Your task to perform on an android device: turn off priority inbox in the gmail app Image 0: 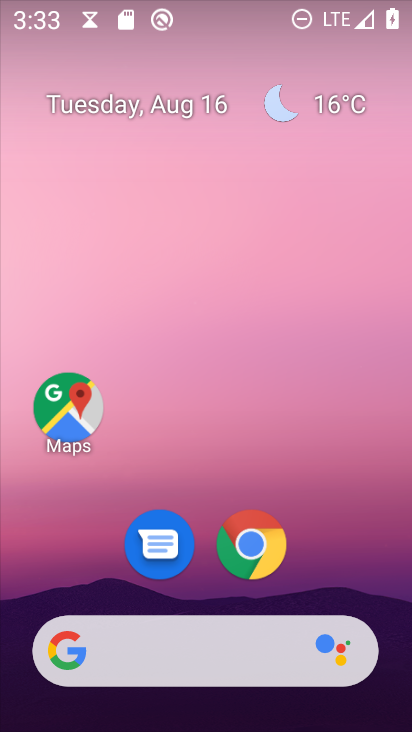
Step 0: drag from (183, 665) to (265, 61)
Your task to perform on an android device: turn off priority inbox in the gmail app Image 1: 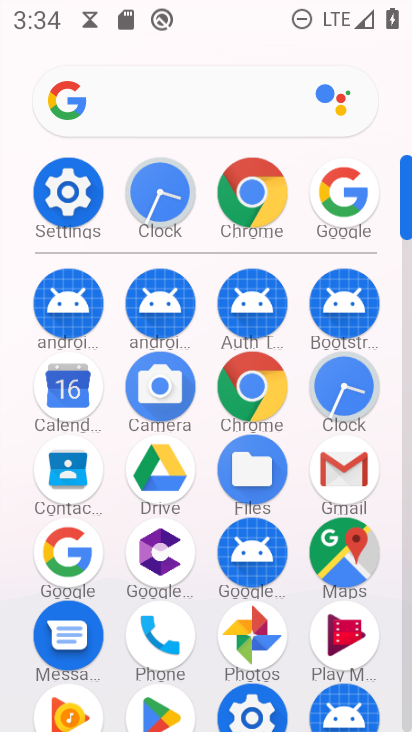
Step 1: click (340, 470)
Your task to perform on an android device: turn off priority inbox in the gmail app Image 2: 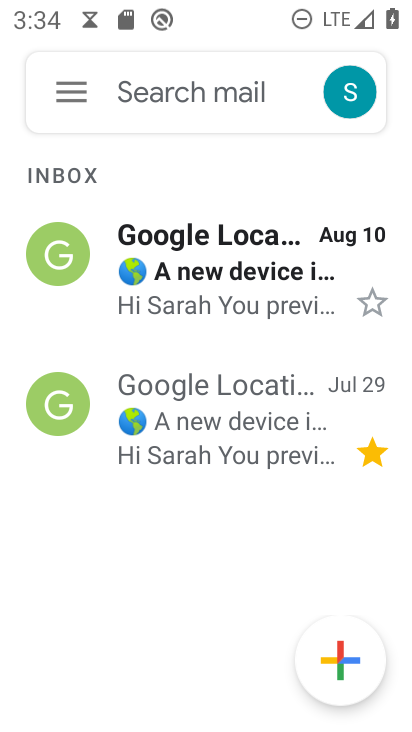
Step 2: click (65, 96)
Your task to perform on an android device: turn off priority inbox in the gmail app Image 3: 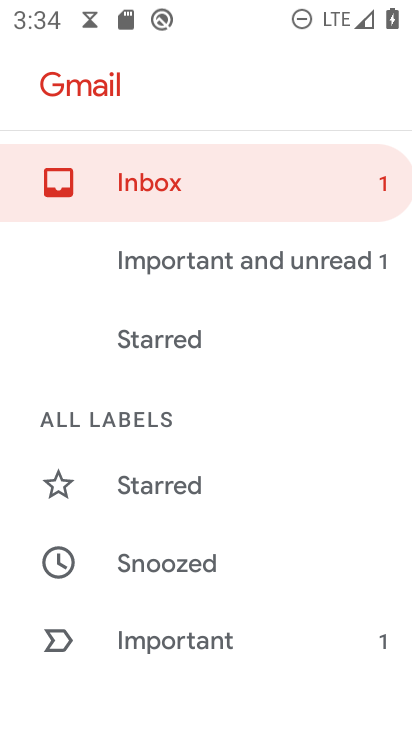
Step 3: drag from (185, 471) to (300, 296)
Your task to perform on an android device: turn off priority inbox in the gmail app Image 4: 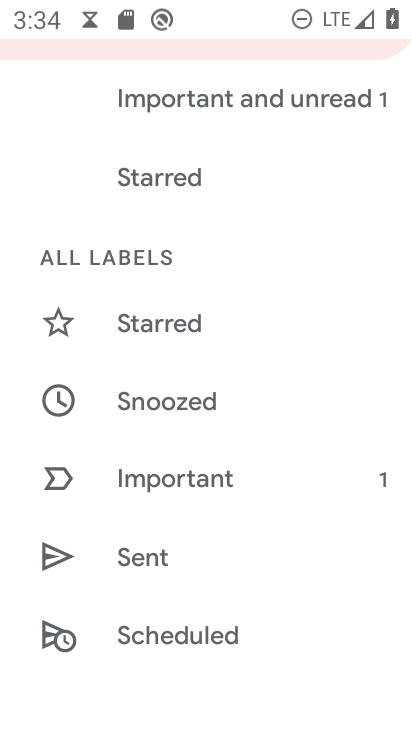
Step 4: drag from (195, 566) to (278, 390)
Your task to perform on an android device: turn off priority inbox in the gmail app Image 5: 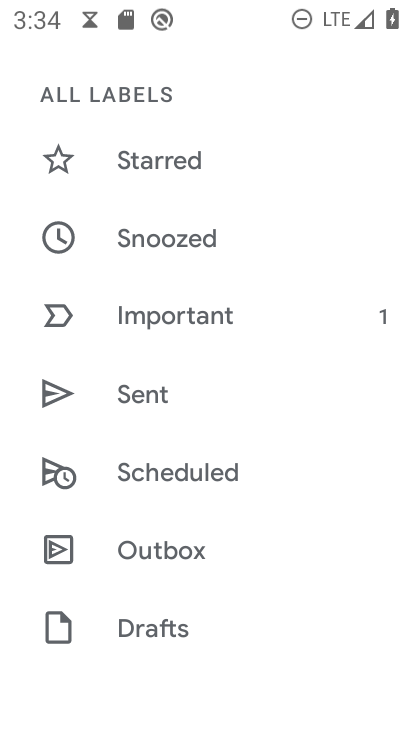
Step 5: drag from (226, 587) to (224, 473)
Your task to perform on an android device: turn off priority inbox in the gmail app Image 6: 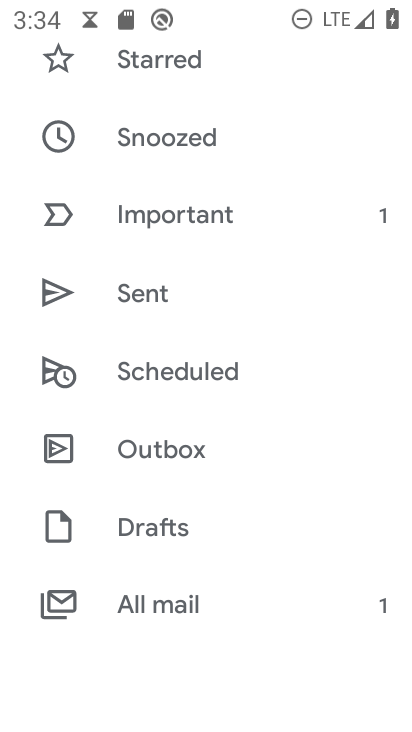
Step 6: drag from (161, 583) to (233, 436)
Your task to perform on an android device: turn off priority inbox in the gmail app Image 7: 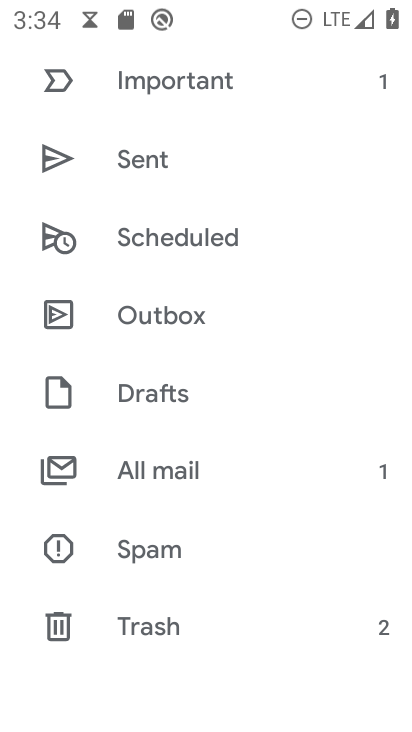
Step 7: drag from (194, 595) to (257, 450)
Your task to perform on an android device: turn off priority inbox in the gmail app Image 8: 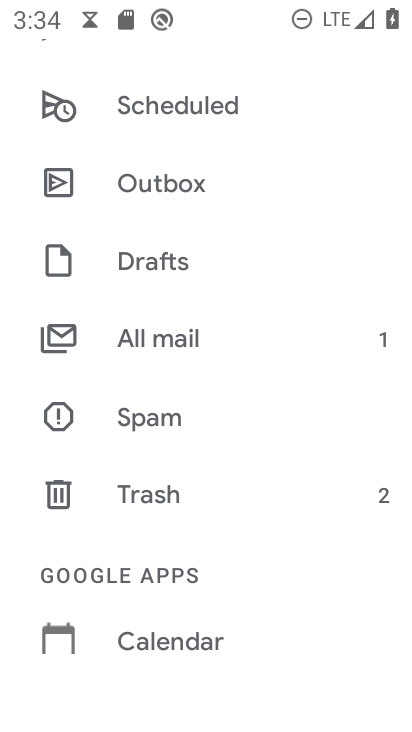
Step 8: drag from (208, 648) to (284, 444)
Your task to perform on an android device: turn off priority inbox in the gmail app Image 9: 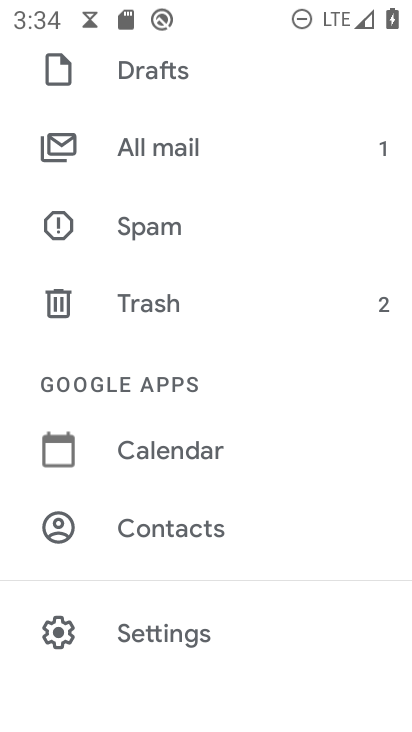
Step 9: click (187, 641)
Your task to perform on an android device: turn off priority inbox in the gmail app Image 10: 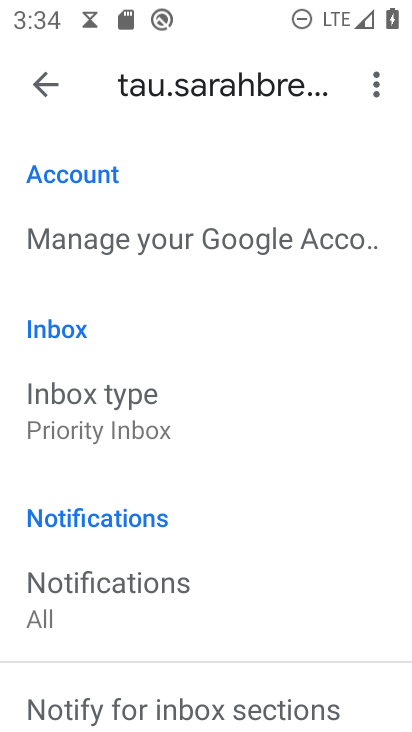
Step 10: click (130, 435)
Your task to perform on an android device: turn off priority inbox in the gmail app Image 11: 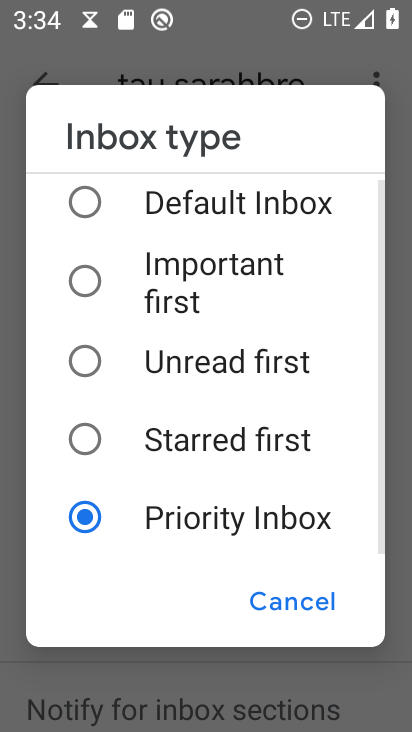
Step 11: click (91, 436)
Your task to perform on an android device: turn off priority inbox in the gmail app Image 12: 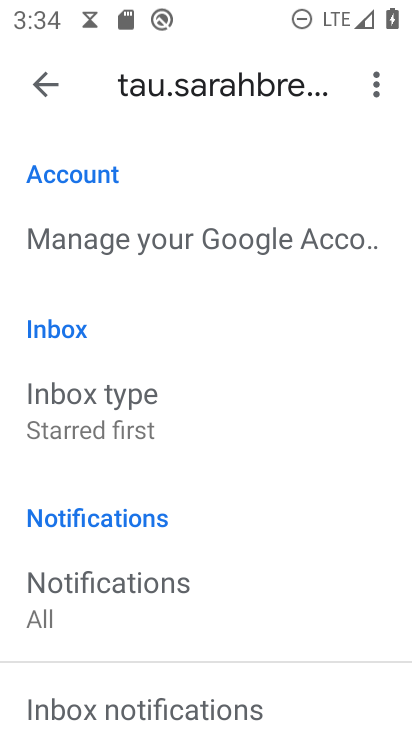
Step 12: task complete